Your task to perform on an android device: turn off javascript in the chrome app Image 0: 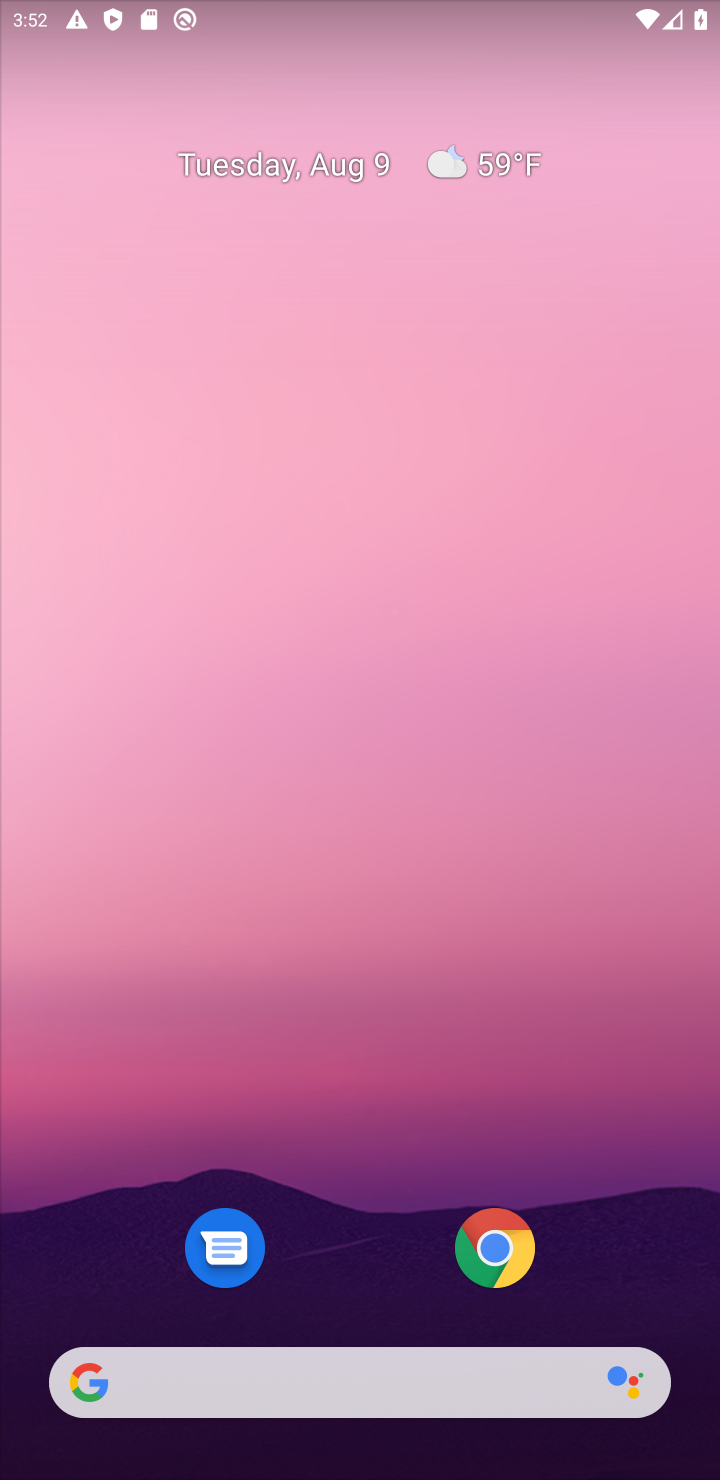
Step 0: drag from (239, 874) to (7, 330)
Your task to perform on an android device: turn off javascript in the chrome app Image 1: 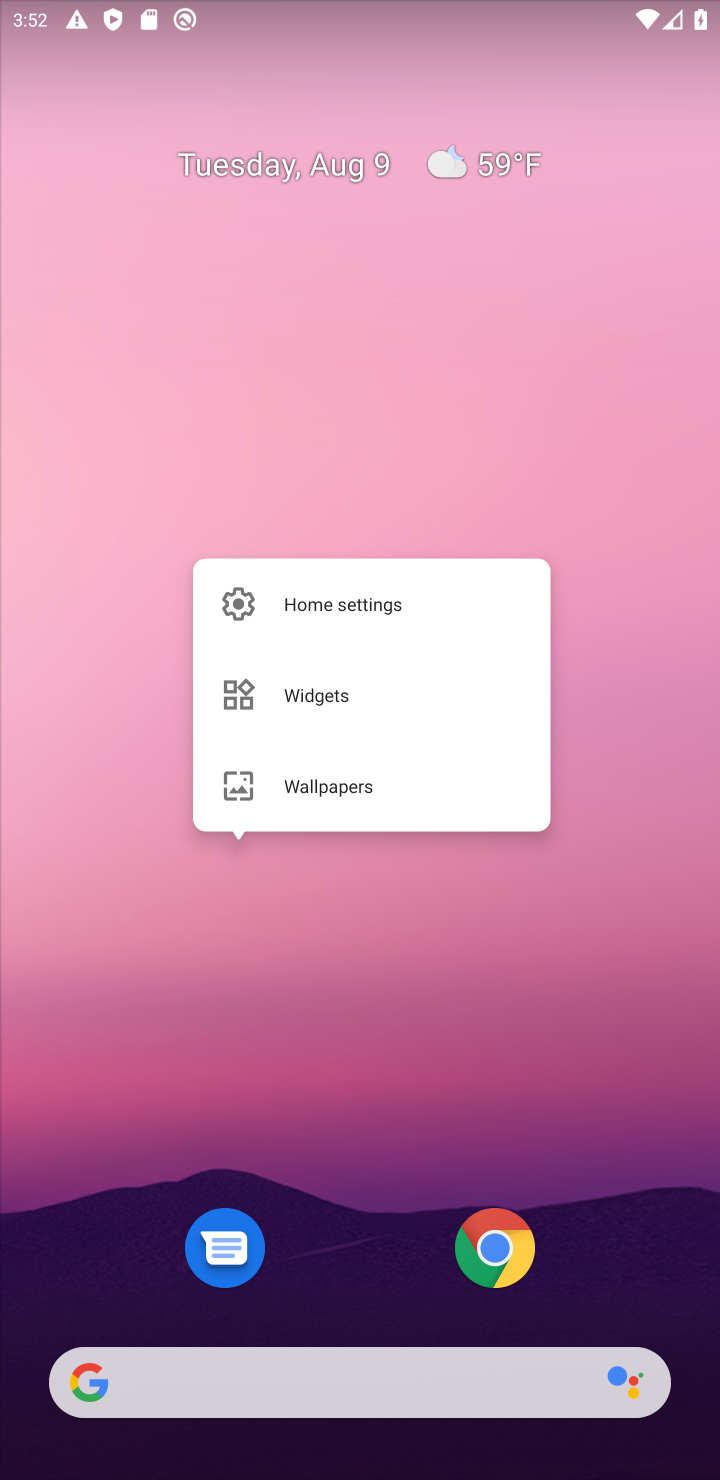
Step 1: click (196, 441)
Your task to perform on an android device: turn off javascript in the chrome app Image 2: 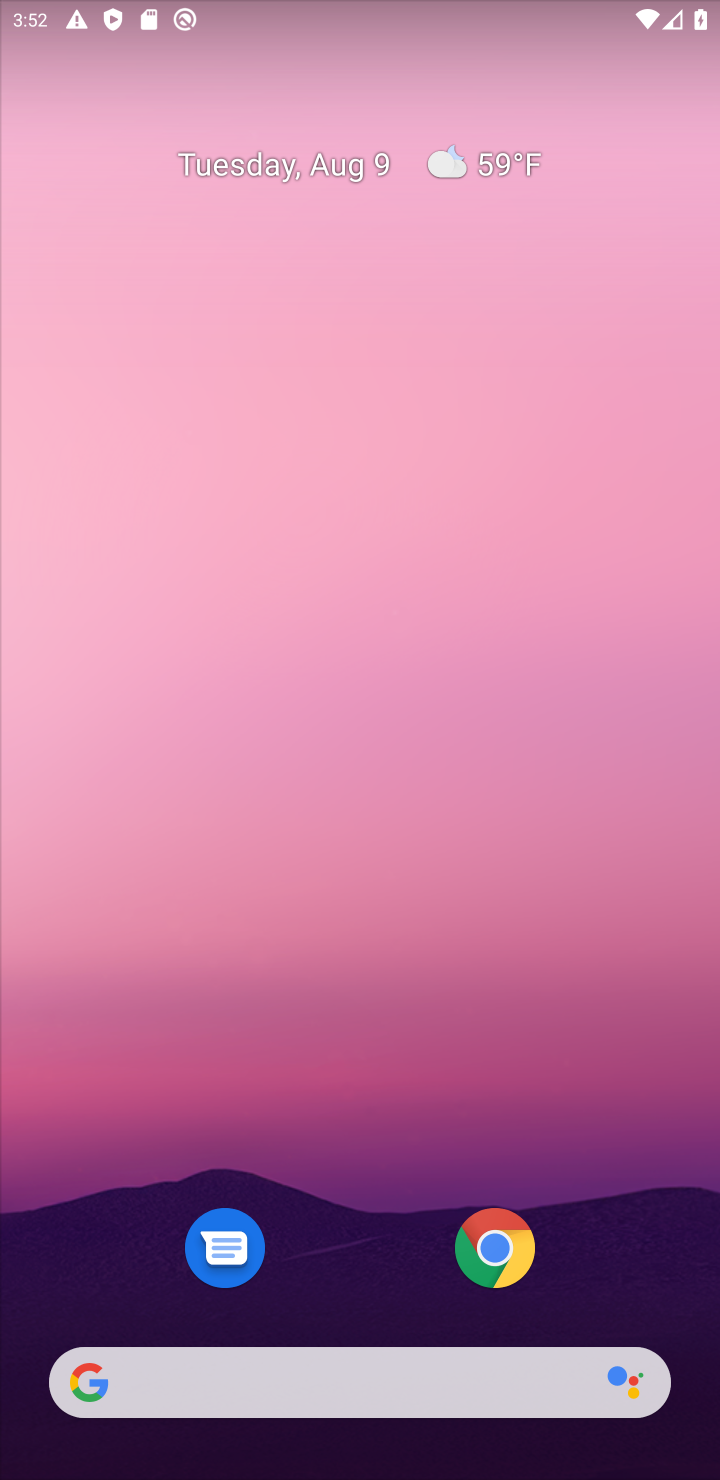
Step 2: drag from (349, 1228) to (397, 466)
Your task to perform on an android device: turn off javascript in the chrome app Image 3: 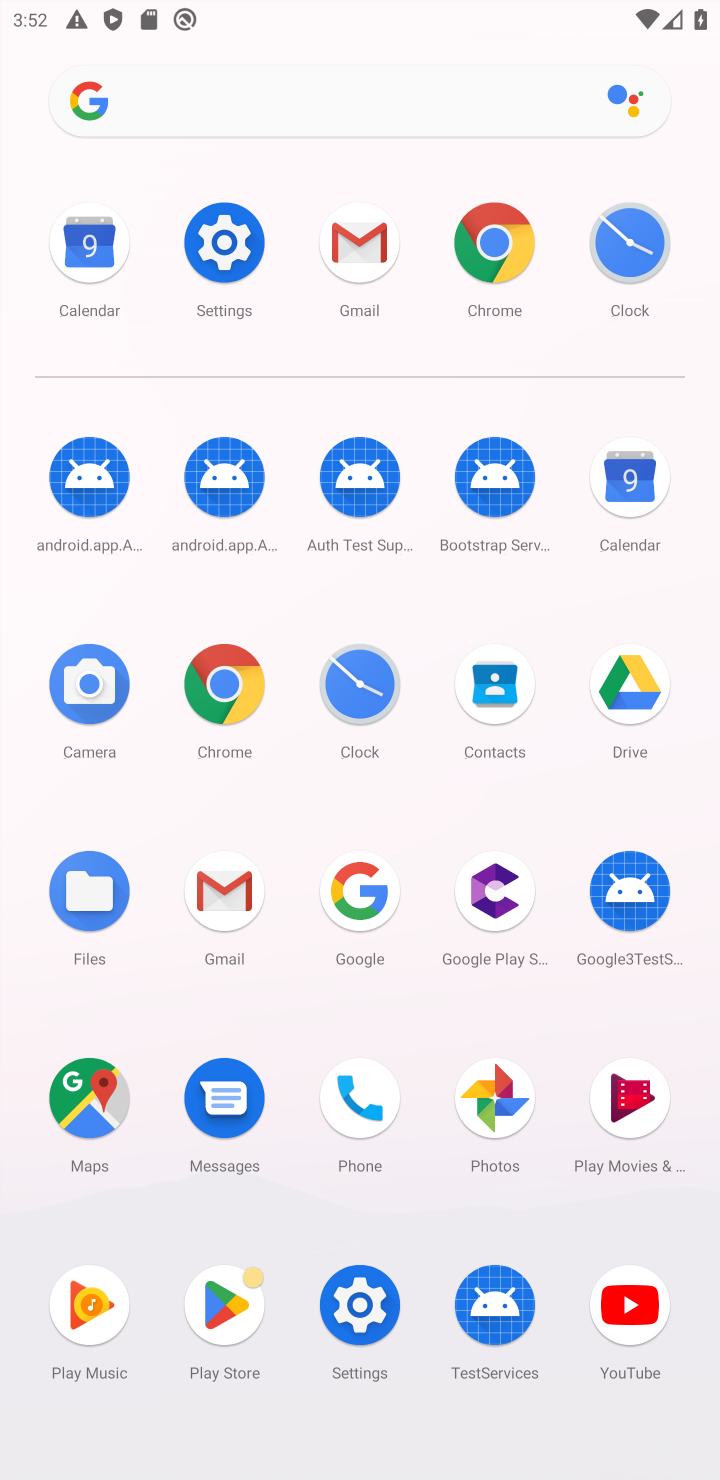
Step 3: click (227, 659)
Your task to perform on an android device: turn off javascript in the chrome app Image 4: 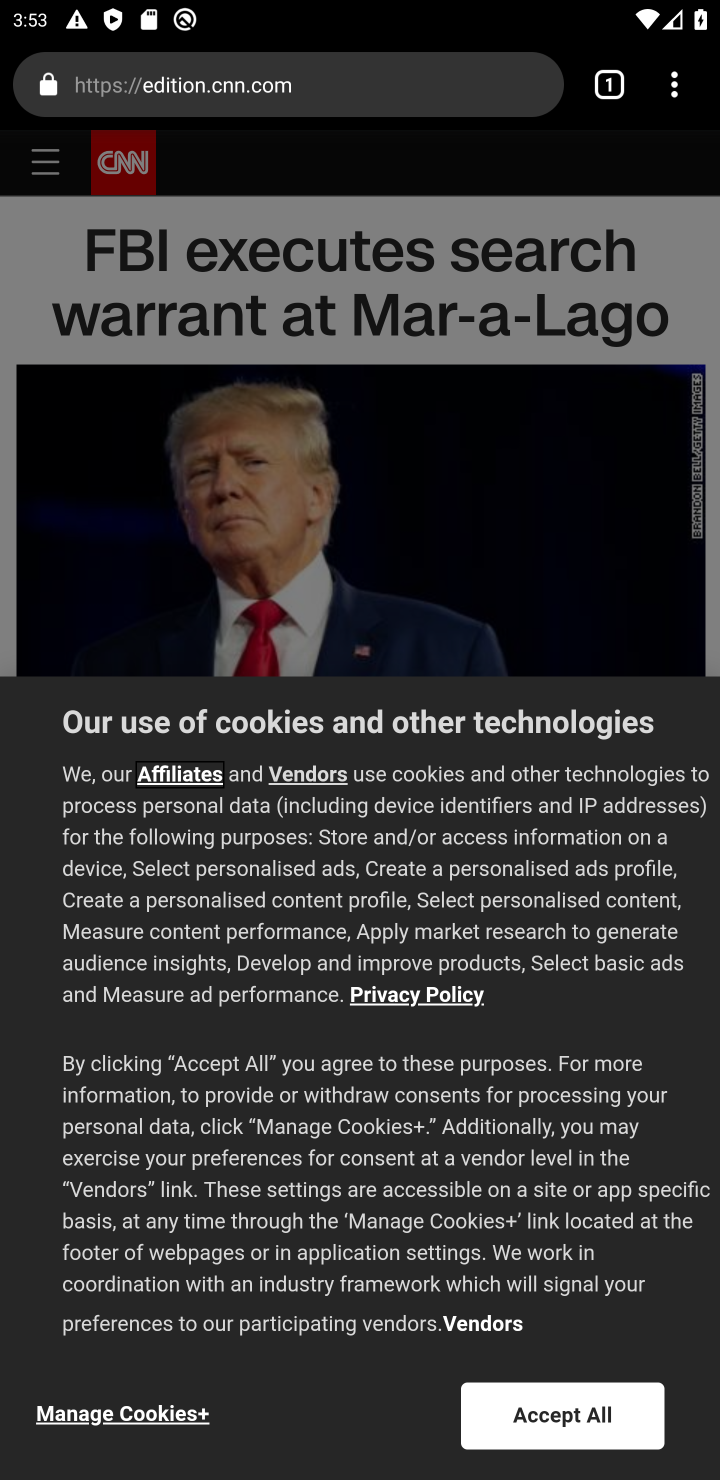
Step 4: drag from (661, 93) to (369, 1048)
Your task to perform on an android device: turn off javascript in the chrome app Image 5: 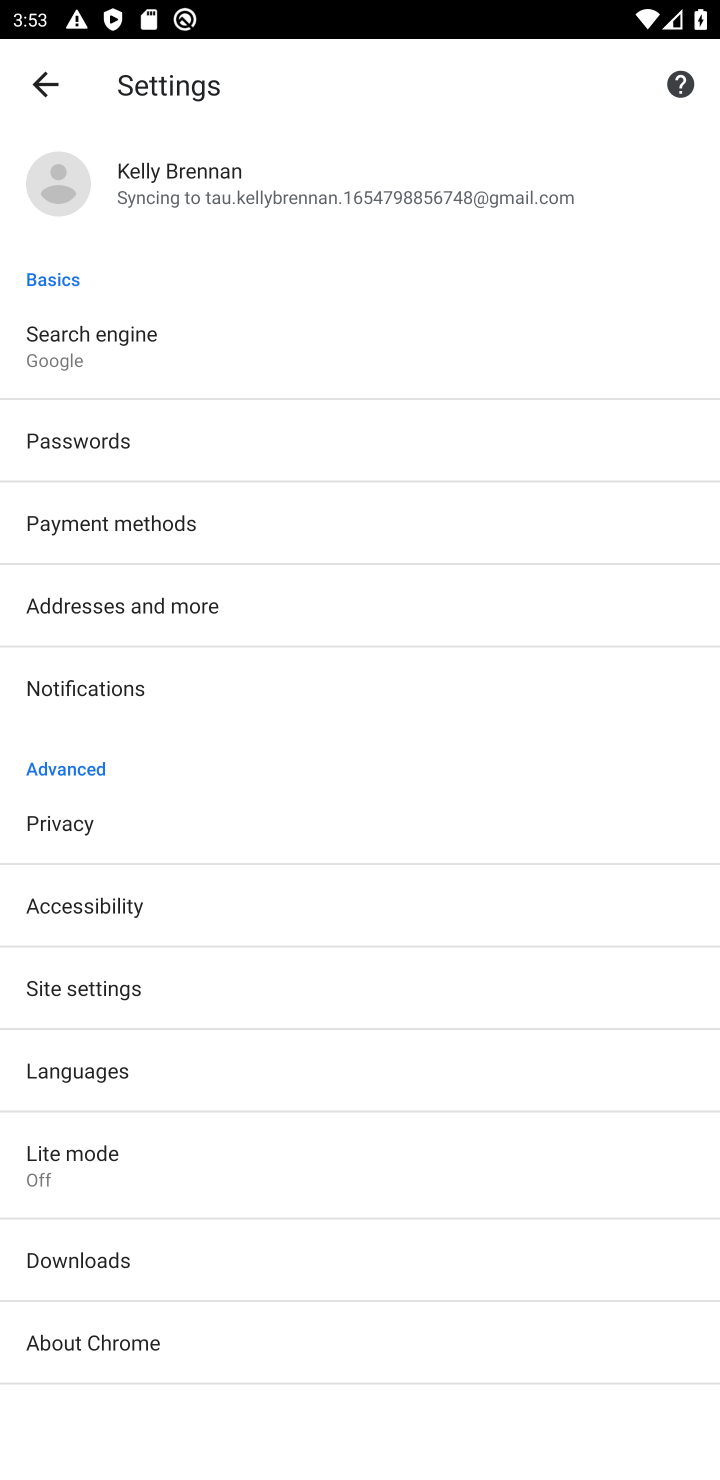
Step 5: click (121, 975)
Your task to perform on an android device: turn off javascript in the chrome app Image 6: 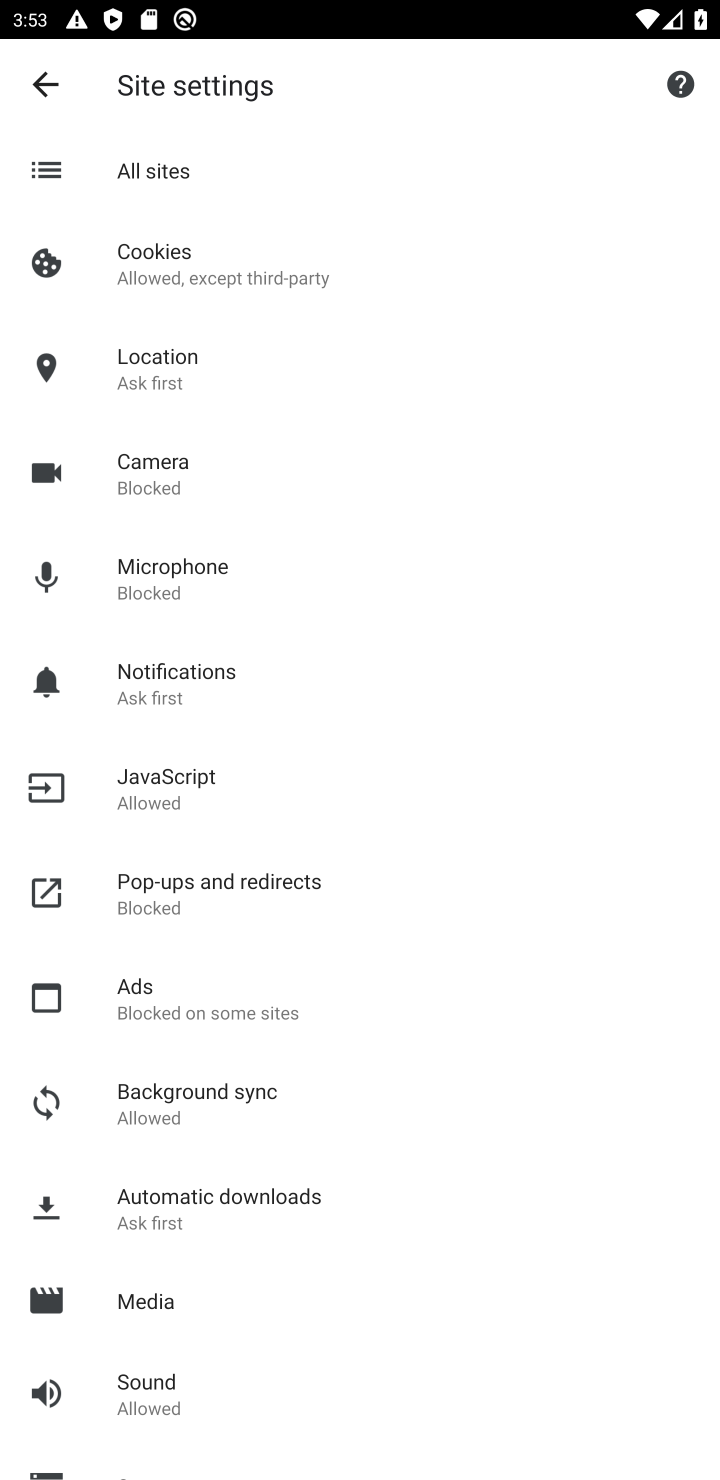
Step 6: click (190, 802)
Your task to perform on an android device: turn off javascript in the chrome app Image 7: 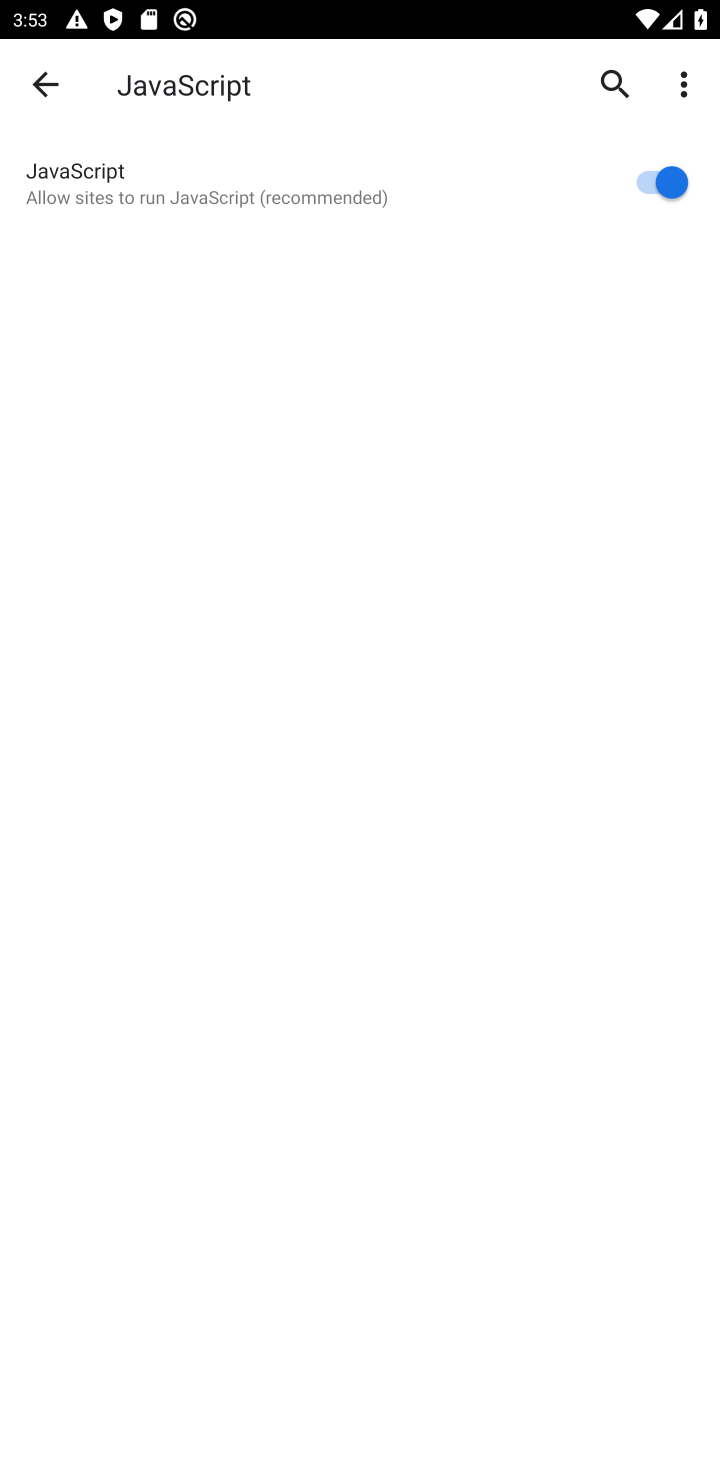
Step 7: click (665, 169)
Your task to perform on an android device: turn off javascript in the chrome app Image 8: 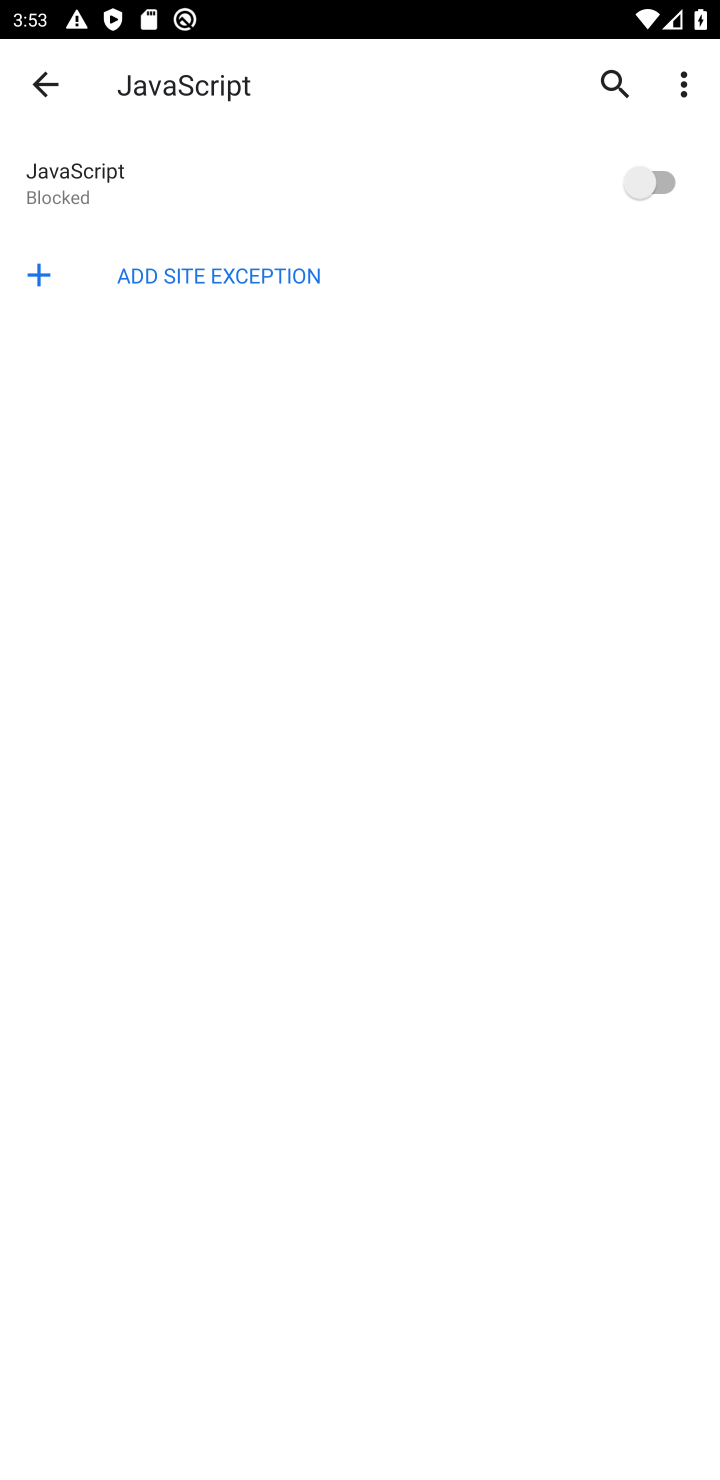
Step 8: task complete